Your task to perform on an android device: Search for vegetarian restaurants on Maps Image 0: 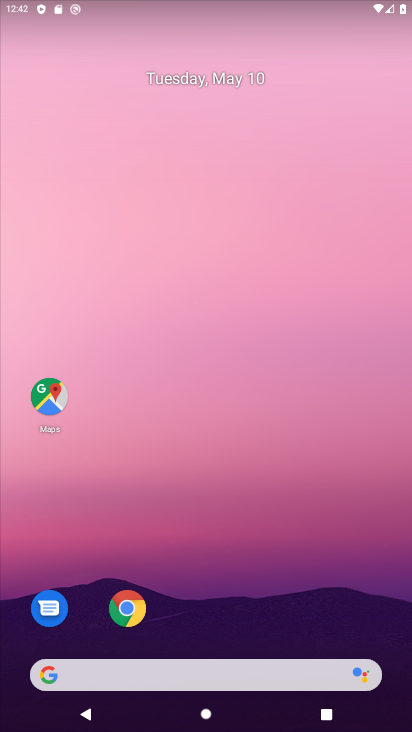
Step 0: drag from (327, 568) to (352, 136)
Your task to perform on an android device: Search for vegetarian restaurants on Maps Image 1: 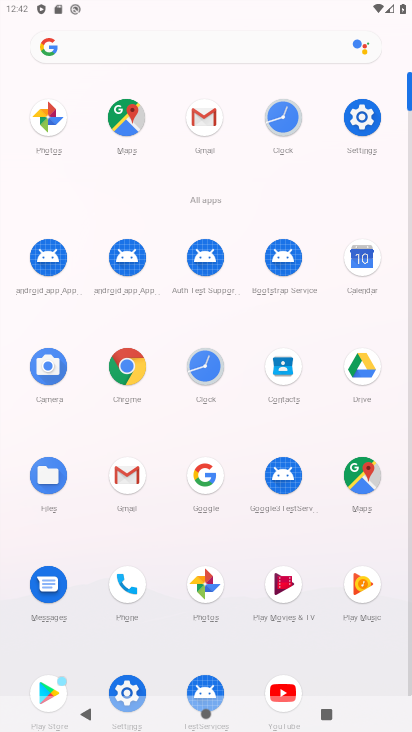
Step 1: click (372, 486)
Your task to perform on an android device: Search for vegetarian restaurants on Maps Image 2: 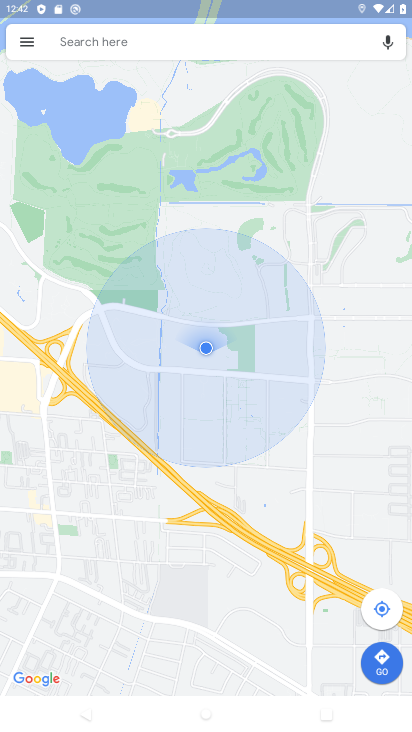
Step 2: click (172, 28)
Your task to perform on an android device: Search for vegetarian restaurants on Maps Image 3: 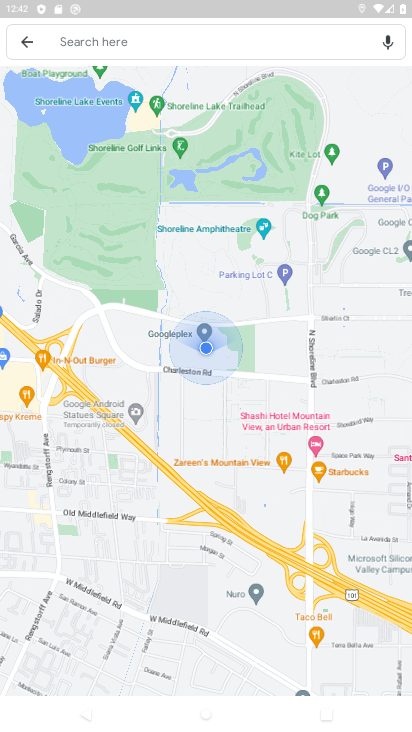
Step 3: click (165, 38)
Your task to perform on an android device: Search for vegetarian restaurants on Maps Image 4: 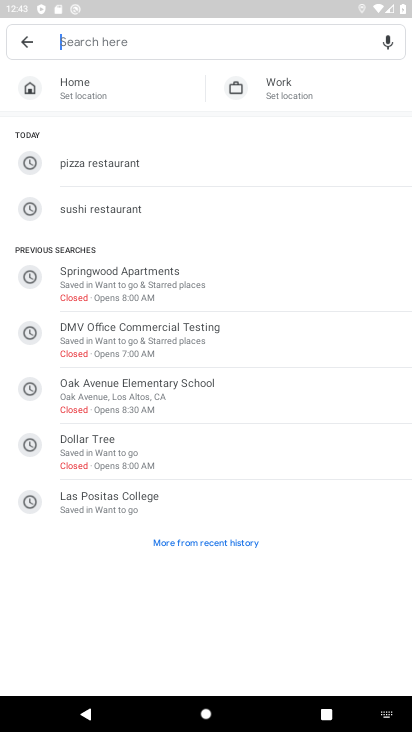
Step 4: type "vegetarian restaurants"
Your task to perform on an android device: Search for vegetarian restaurants on Maps Image 5: 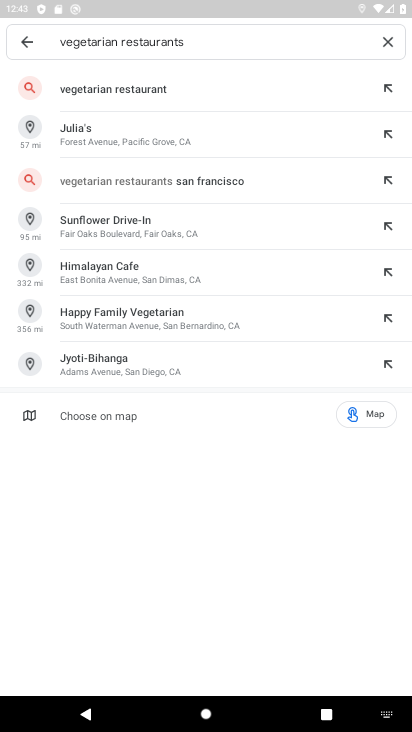
Step 5: click (140, 81)
Your task to perform on an android device: Search for vegetarian restaurants on Maps Image 6: 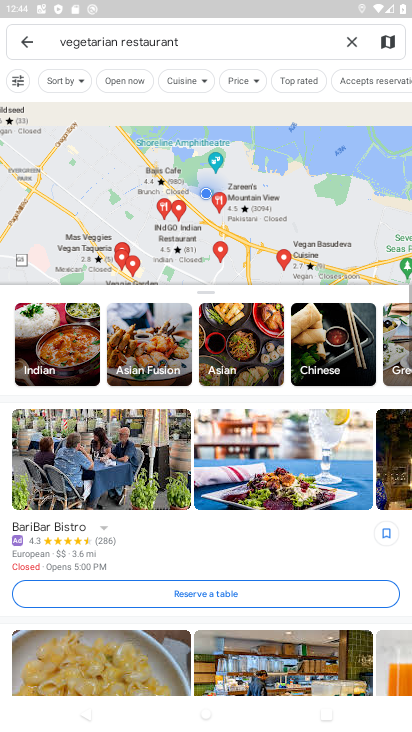
Step 6: task complete